Your task to perform on an android device: Open settings Image 0: 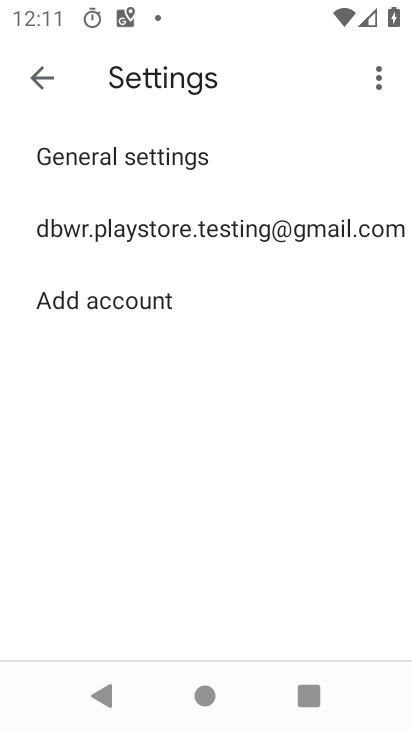
Step 0: press home button
Your task to perform on an android device: Open settings Image 1: 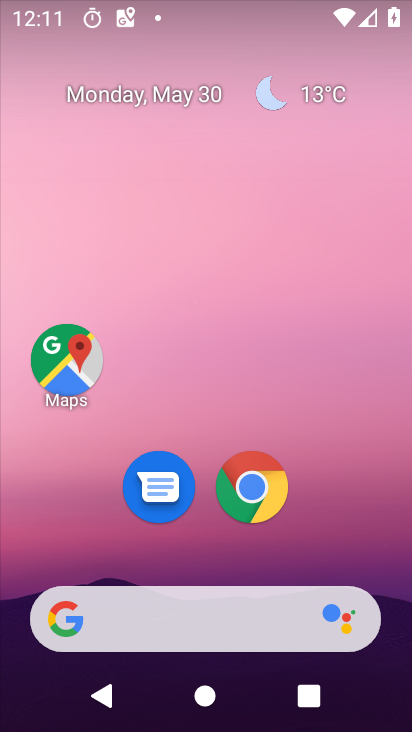
Step 1: click (343, 138)
Your task to perform on an android device: Open settings Image 2: 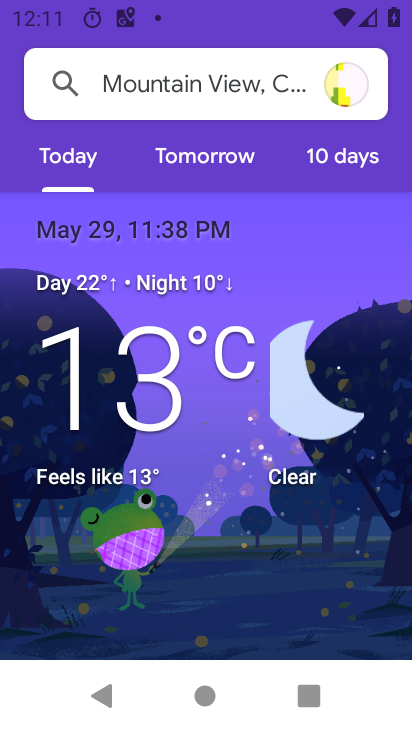
Step 2: press home button
Your task to perform on an android device: Open settings Image 3: 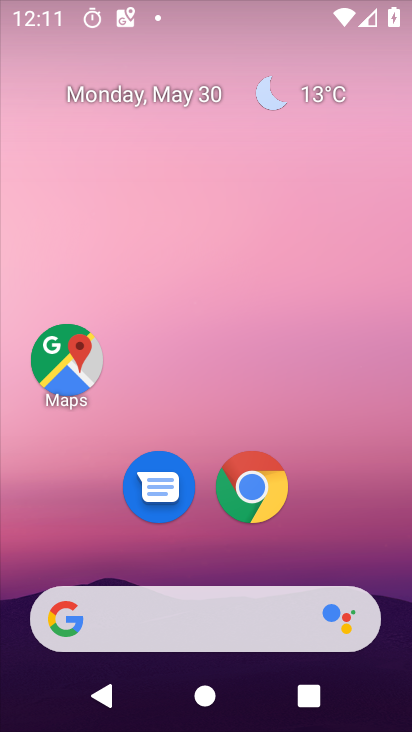
Step 3: drag from (389, 682) to (260, 55)
Your task to perform on an android device: Open settings Image 4: 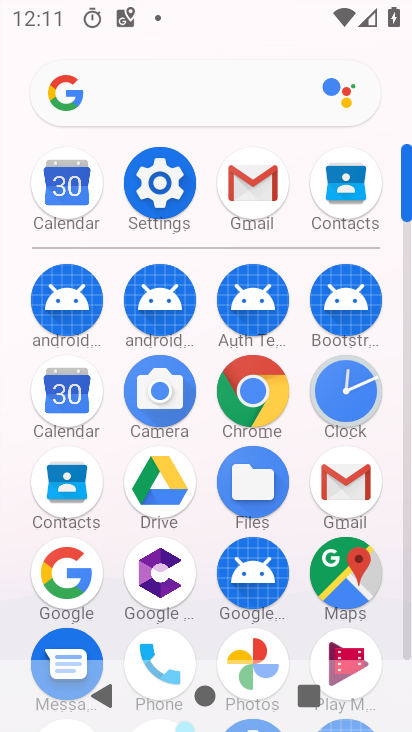
Step 4: click (176, 174)
Your task to perform on an android device: Open settings Image 5: 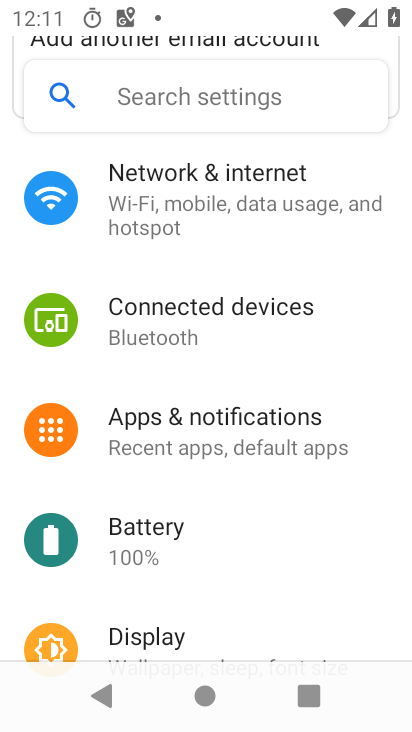
Step 5: task complete